Your task to perform on an android device: turn off location Image 0: 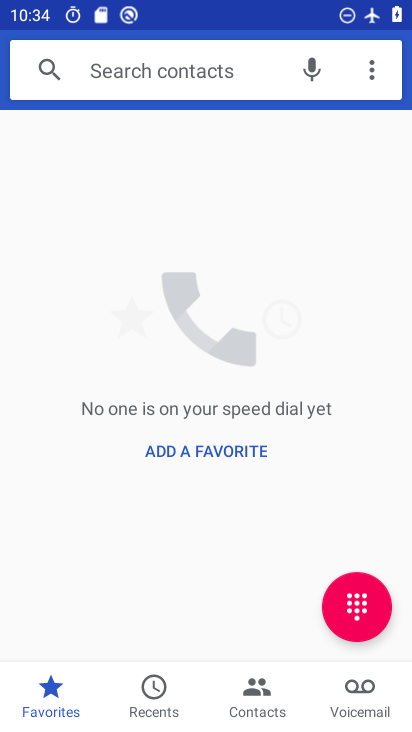
Step 0: press home button
Your task to perform on an android device: turn off location Image 1: 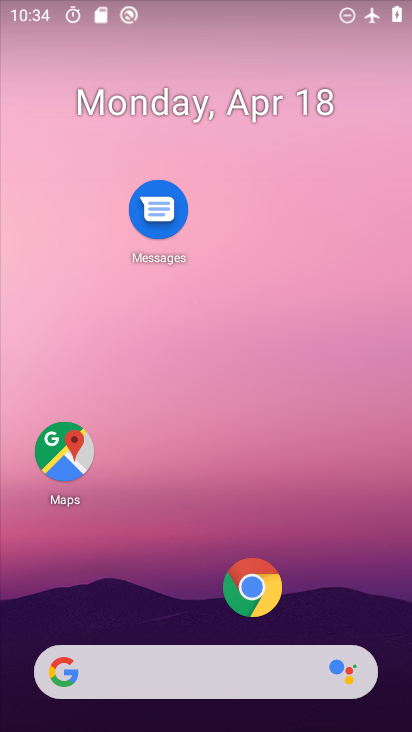
Step 1: drag from (186, 617) to (278, 7)
Your task to perform on an android device: turn off location Image 2: 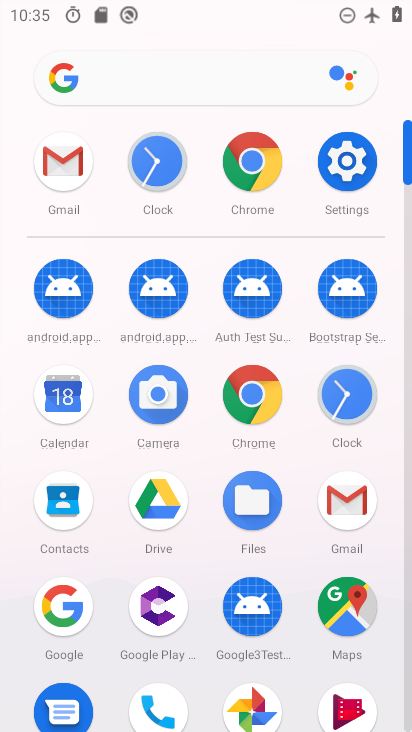
Step 2: click (355, 172)
Your task to perform on an android device: turn off location Image 3: 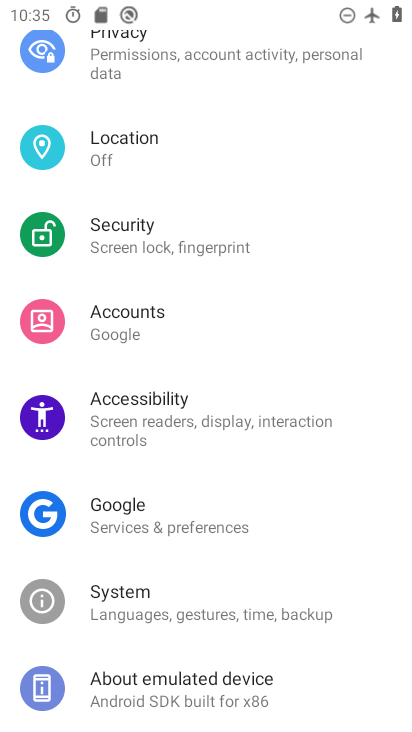
Step 3: click (144, 140)
Your task to perform on an android device: turn off location Image 4: 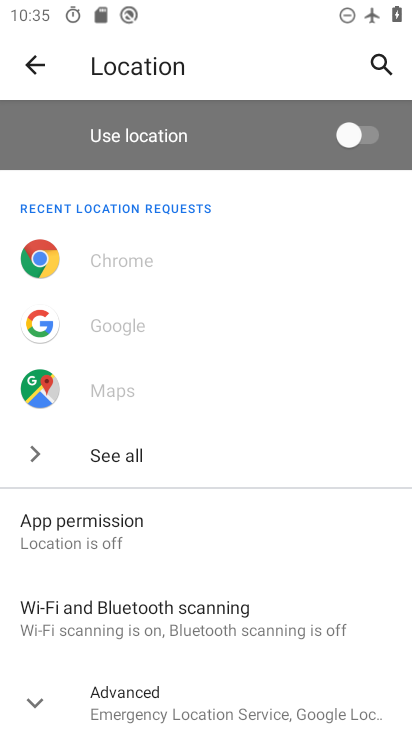
Step 4: task complete